Your task to perform on an android device: Open Chrome and go to settings Image 0: 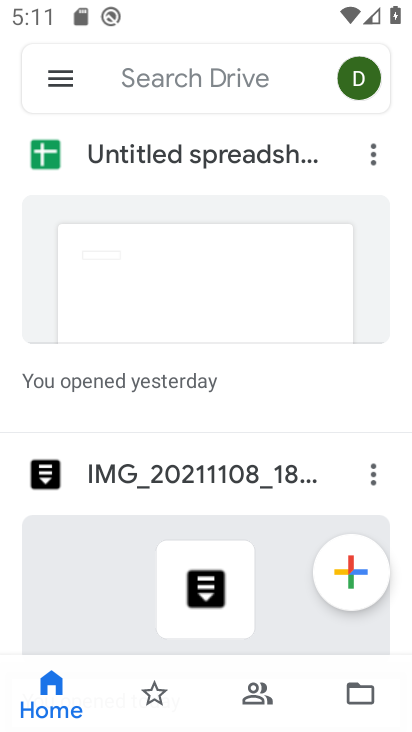
Step 0: press back button
Your task to perform on an android device: Open Chrome and go to settings Image 1: 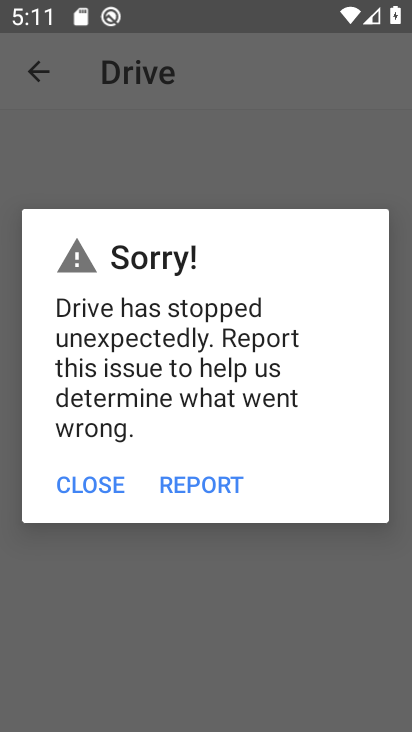
Step 1: press back button
Your task to perform on an android device: Open Chrome and go to settings Image 2: 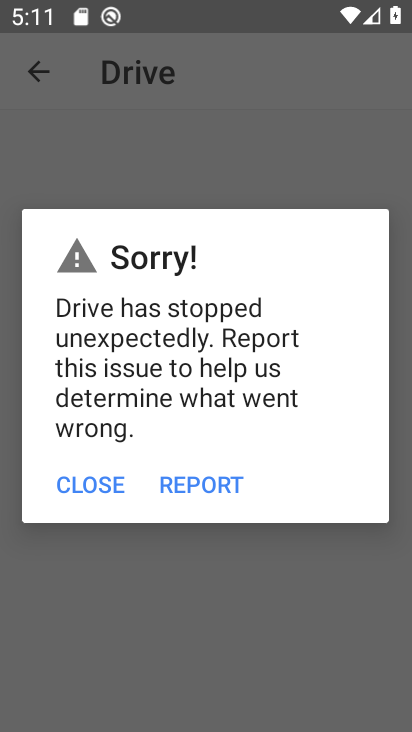
Step 2: press home button
Your task to perform on an android device: Open Chrome and go to settings Image 3: 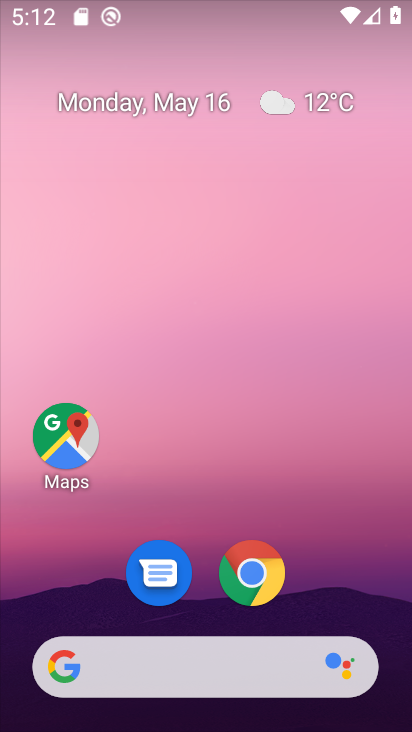
Step 3: drag from (183, 618) to (282, 41)
Your task to perform on an android device: Open Chrome and go to settings Image 4: 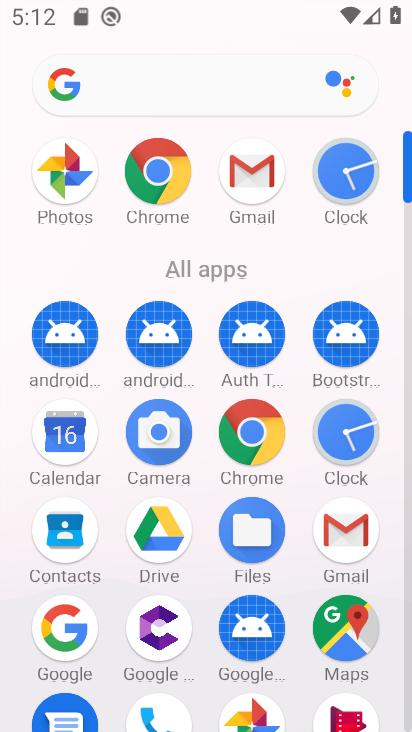
Step 4: click (148, 168)
Your task to perform on an android device: Open Chrome and go to settings Image 5: 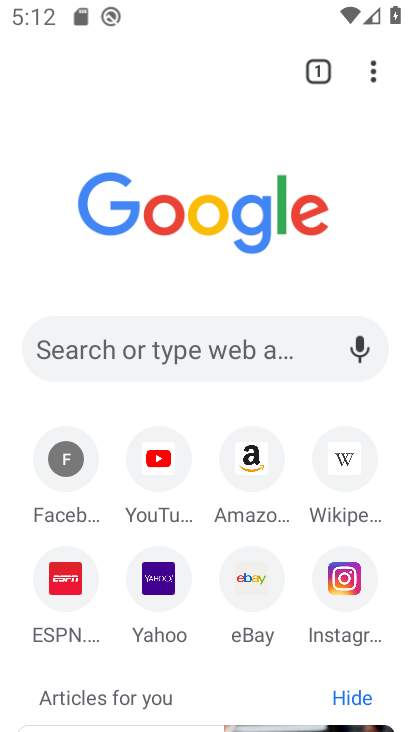
Step 5: click (375, 63)
Your task to perform on an android device: Open Chrome and go to settings Image 6: 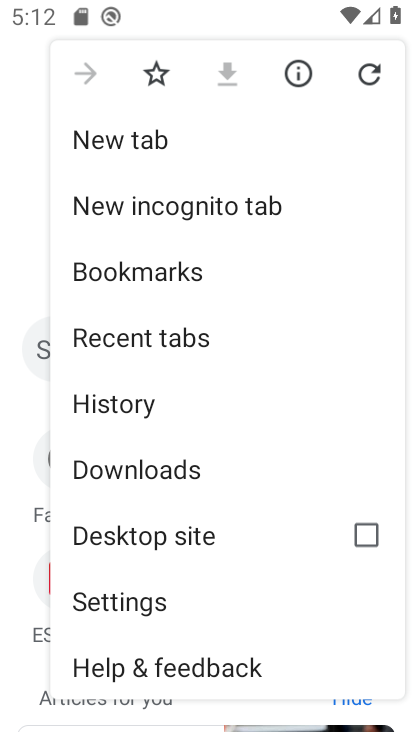
Step 6: click (173, 614)
Your task to perform on an android device: Open Chrome and go to settings Image 7: 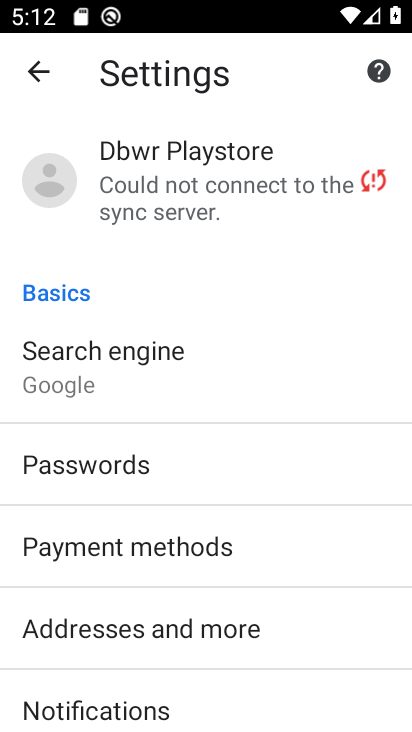
Step 7: task complete